Your task to perform on an android device: Go to CNN.com Image 0: 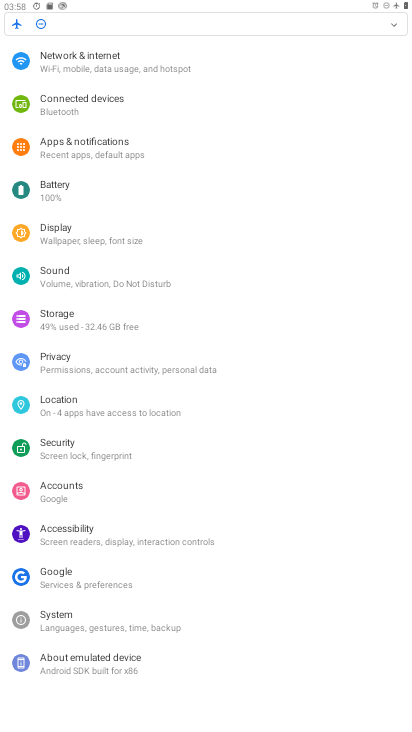
Step 0: press home button
Your task to perform on an android device: Go to CNN.com Image 1: 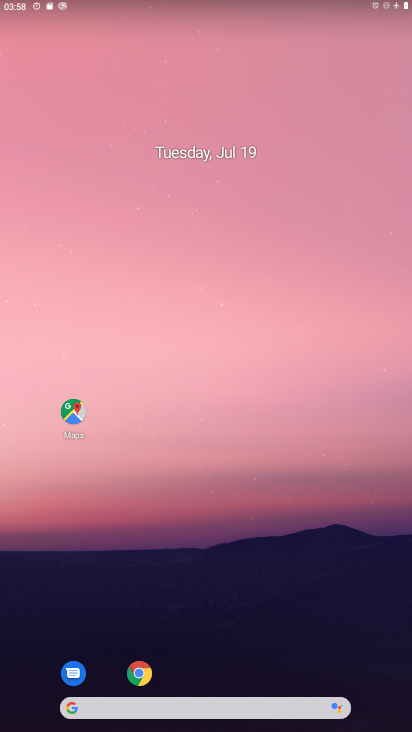
Step 1: click (146, 677)
Your task to perform on an android device: Go to CNN.com Image 2: 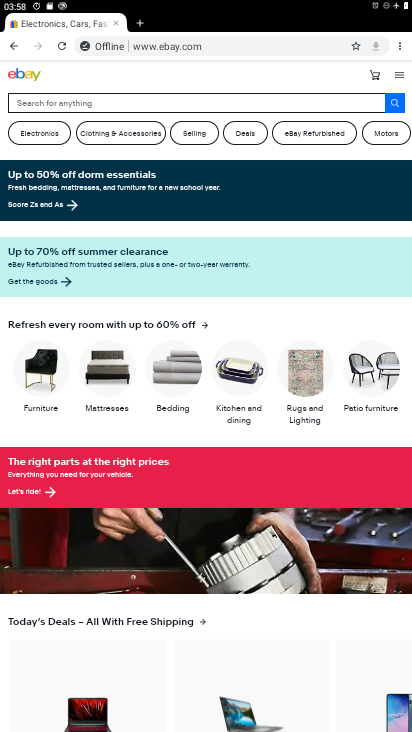
Step 2: click (171, 42)
Your task to perform on an android device: Go to CNN.com Image 3: 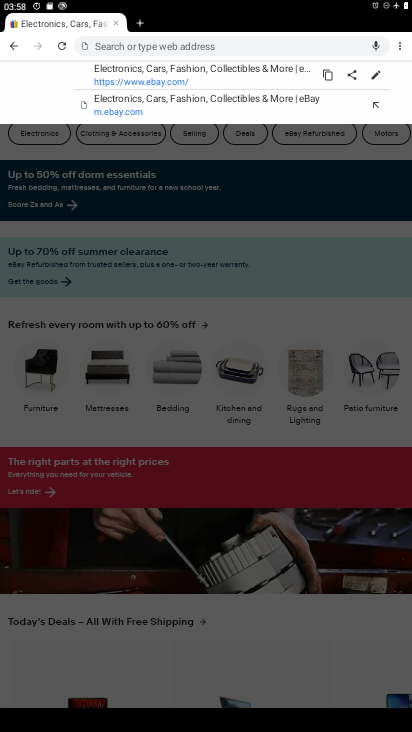
Step 3: type "CNN.com"
Your task to perform on an android device: Go to CNN.com Image 4: 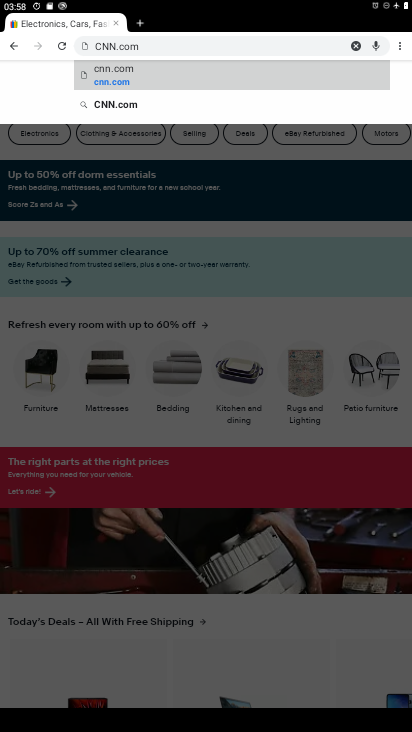
Step 4: click (147, 70)
Your task to perform on an android device: Go to CNN.com Image 5: 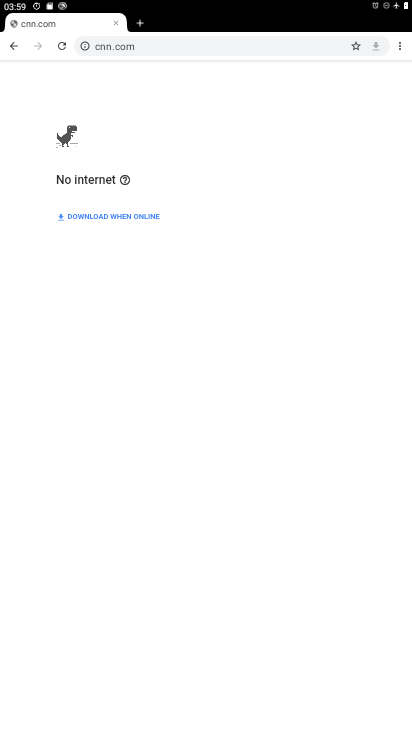
Step 5: task complete